Your task to perform on an android device: turn off airplane mode Image 0: 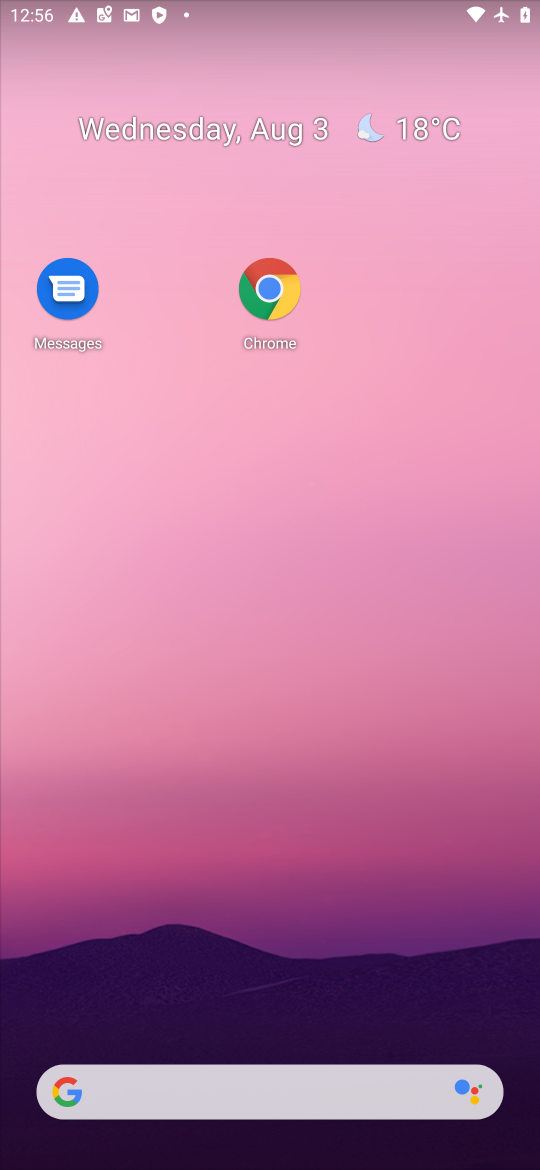
Step 0: drag from (357, 1044) to (267, 377)
Your task to perform on an android device: turn off airplane mode Image 1: 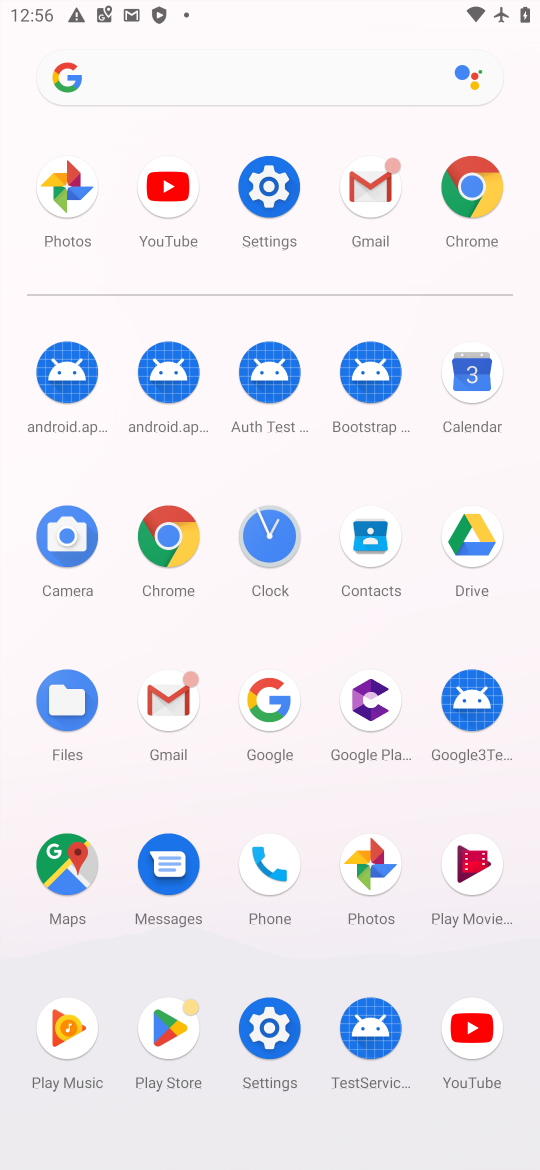
Step 1: click (261, 256)
Your task to perform on an android device: turn off airplane mode Image 2: 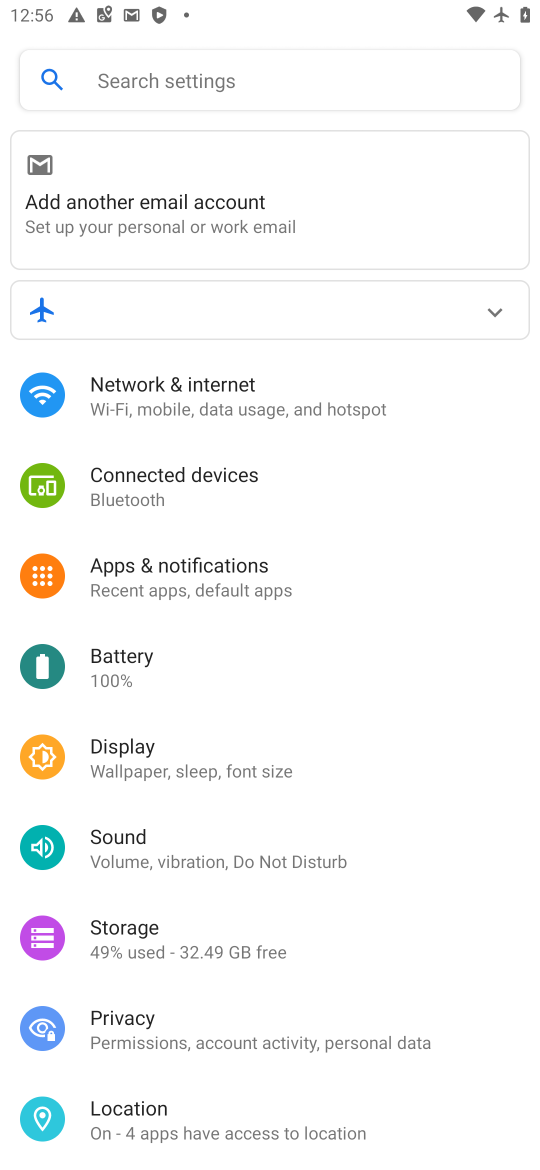
Step 2: click (151, 422)
Your task to perform on an android device: turn off airplane mode Image 3: 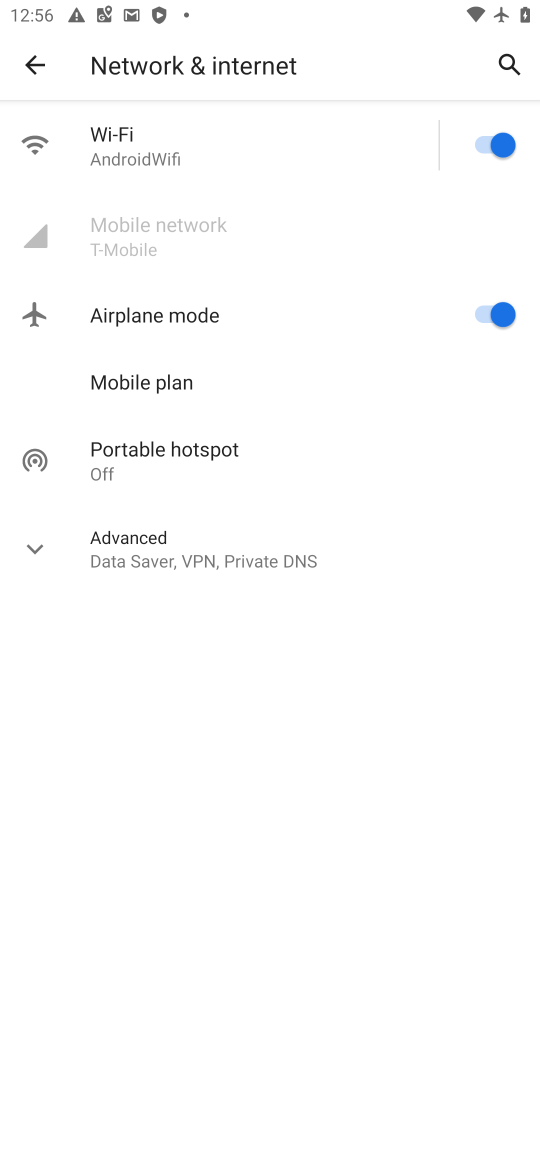
Step 3: click (452, 312)
Your task to perform on an android device: turn off airplane mode Image 4: 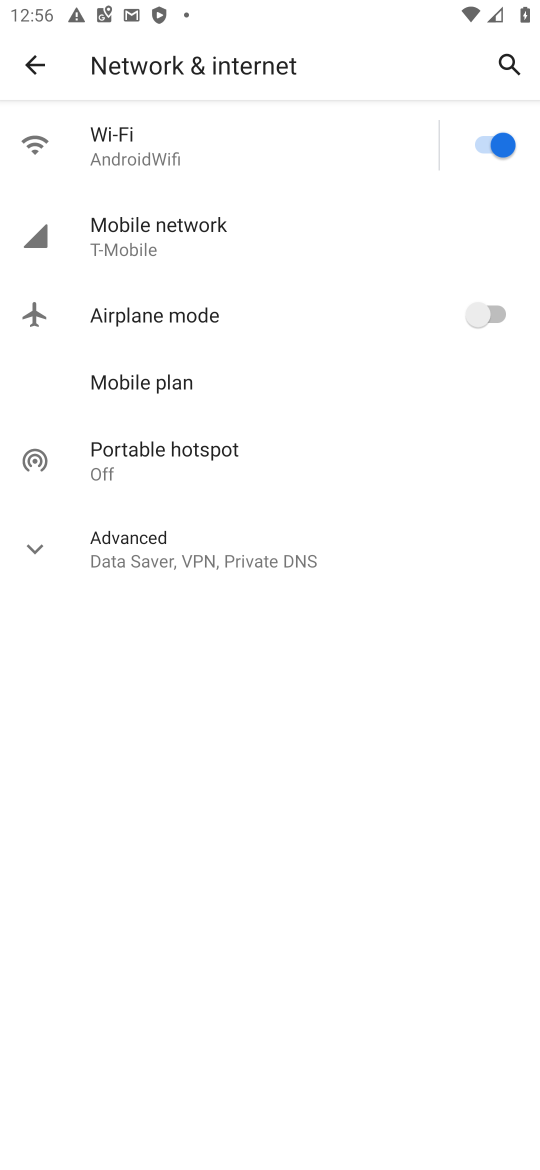
Step 4: task complete